Your task to perform on an android device: turn off location history Image 0: 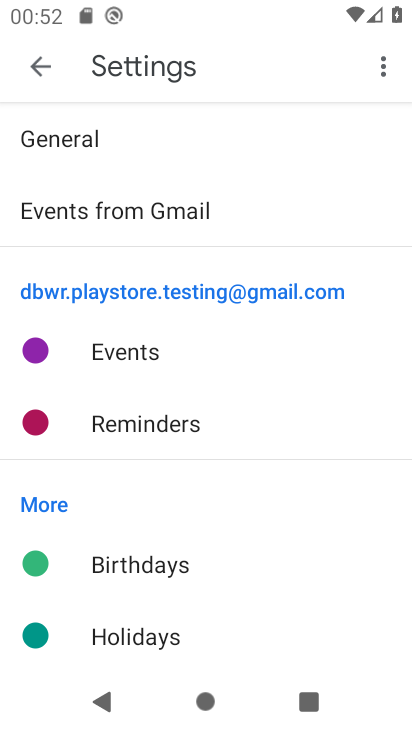
Step 0: press home button
Your task to perform on an android device: turn off location history Image 1: 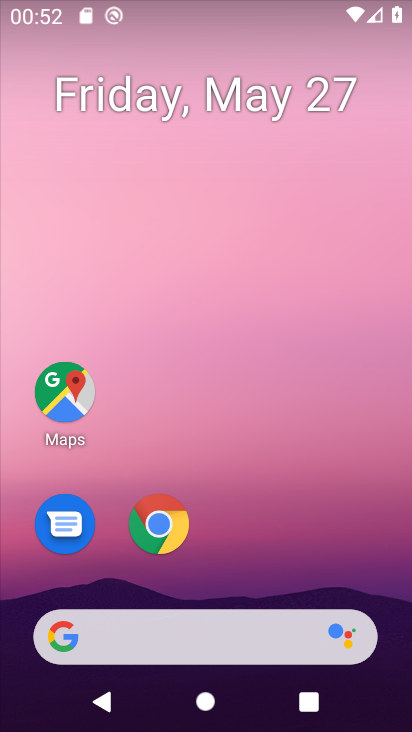
Step 1: drag from (249, 553) to (261, 35)
Your task to perform on an android device: turn off location history Image 2: 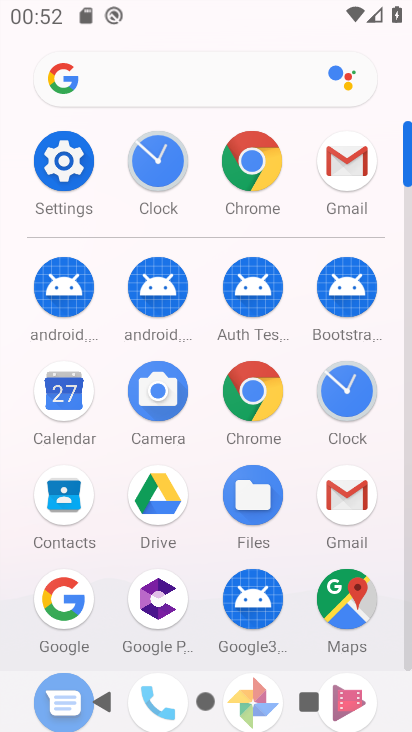
Step 2: click (68, 164)
Your task to perform on an android device: turn off location history Image 3: 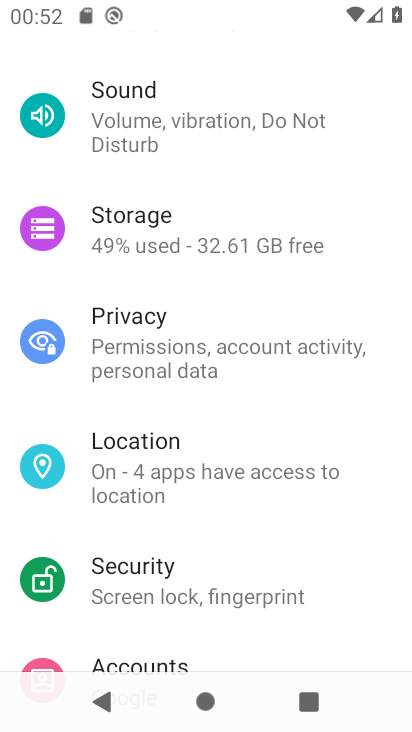
Step 3: click (219, 461)
Your task to perform on an android device: turn off location history Image 4: 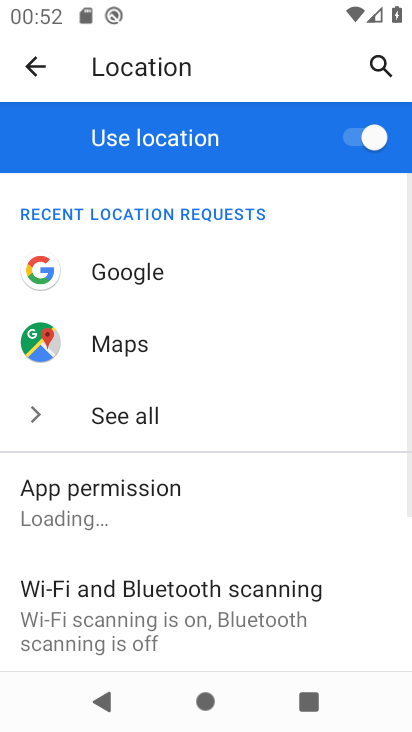
Step 4: drag from (245, 560) to (237, 151)
Your task to perform on an android device: turn off location history Image 5: 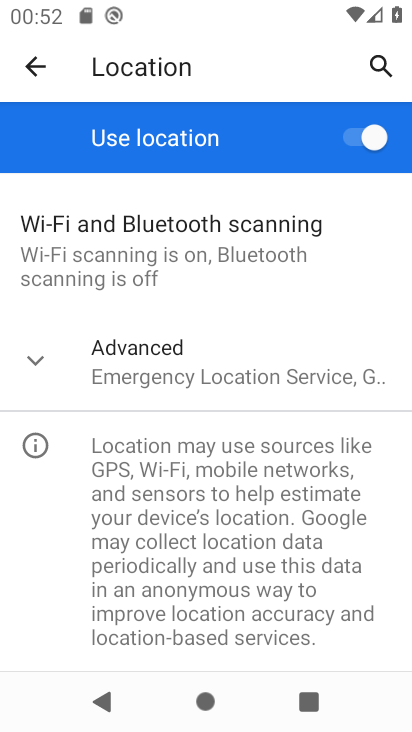
Step 5: click (39, 358)
Your task to perform on an android device: turn off location history Image 6: 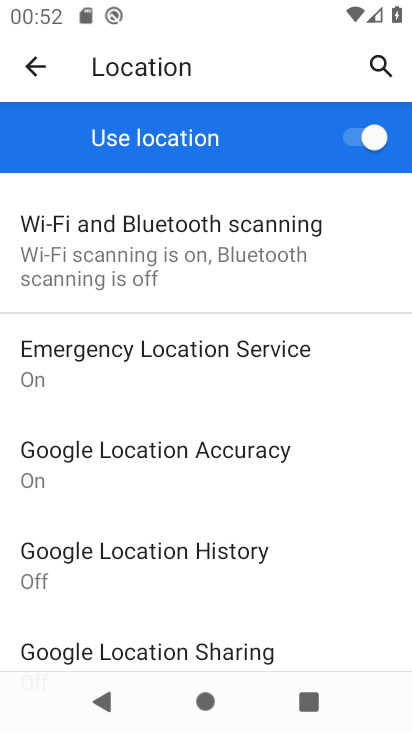
Step 6: click (212, 553)
Your task to perform on an android device: turn off location history Image 7: 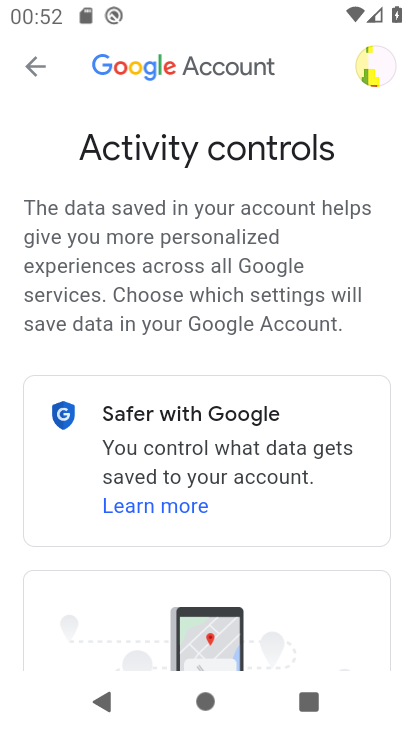
Step 7: drag from (292, 623) to (327, 86)
Your task to perform on an android device: turn off location history Image 8: 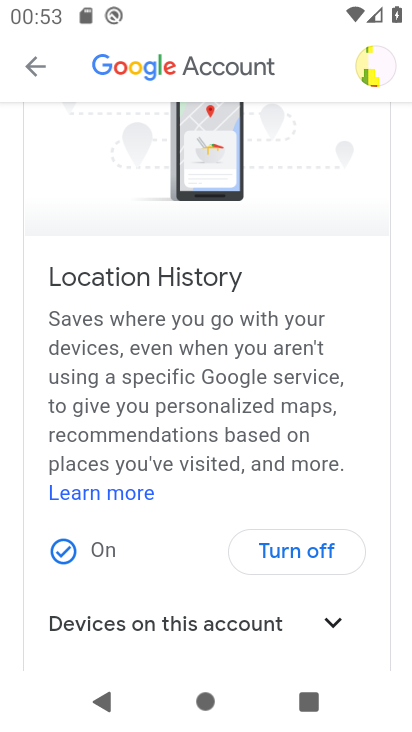
Step 8: click (314, 552)
Your task to perform on an android device: turn off location history Image 9: 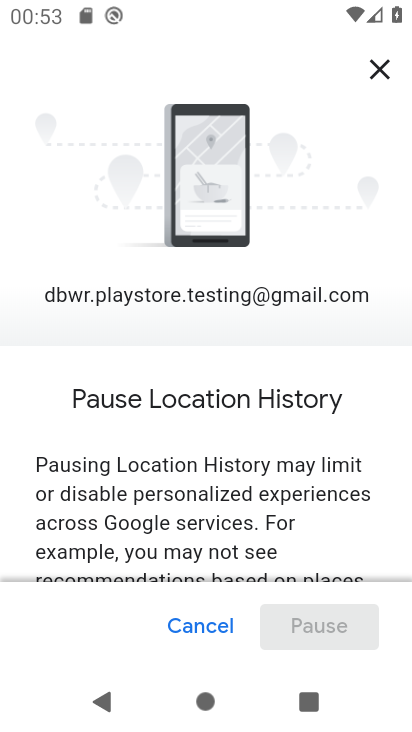
Step 9: drag from (276, 532) to (317, 1)
Your task to perform on an android device: turn off location history Image 10: 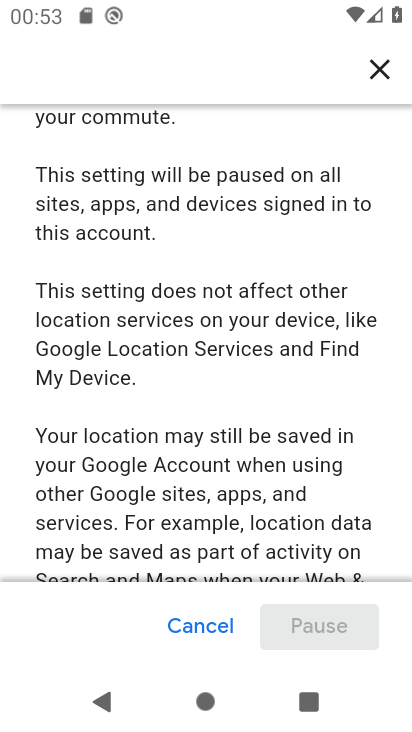
Step 10: drag from (281, 485) to (303, 100)
Your task to perform on an android device: turn off location history Image 11: 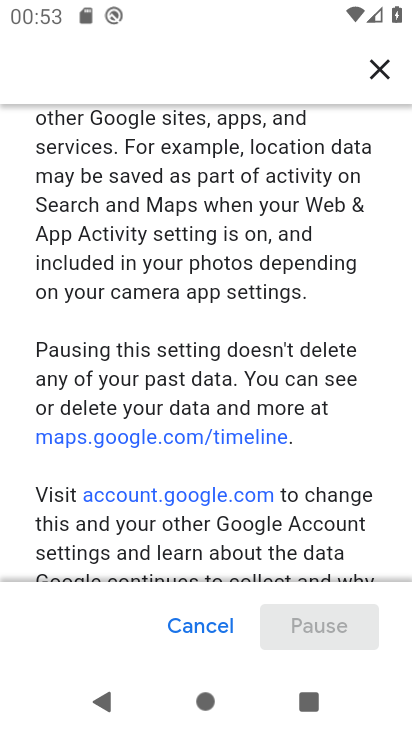
Step 11: drag from (300, 471) to (322, 209)
Your task to perform on an android device: turn off location history Image 12: 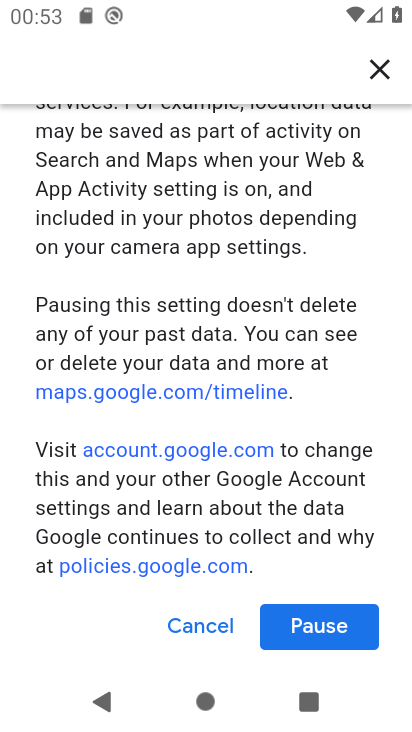
Step 12: click (346, 623)
Your task to perform on an android device: turn off location history Image 13: 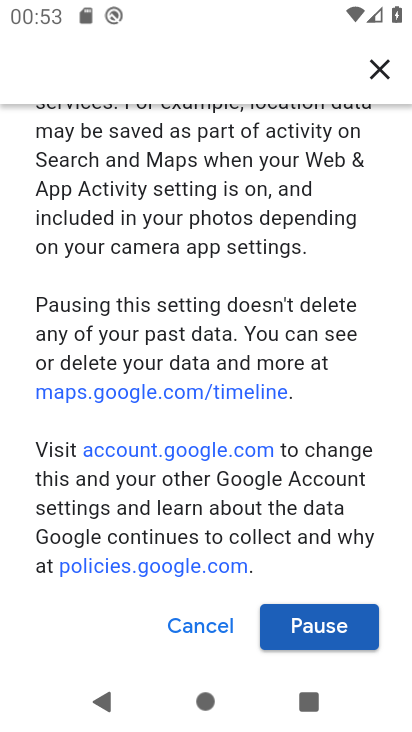
Step 13: click (346, 620)
Your task to perform on an android device: turn off location history Image 14: 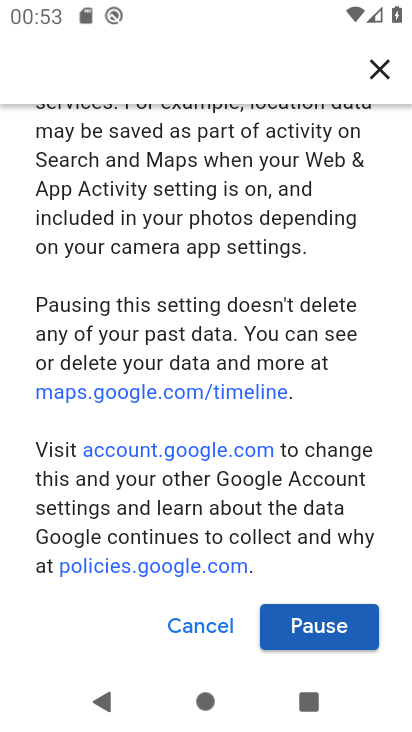
Step 14: click (333, 633)
Your task to perform on an android device: turn off location history Image 15: 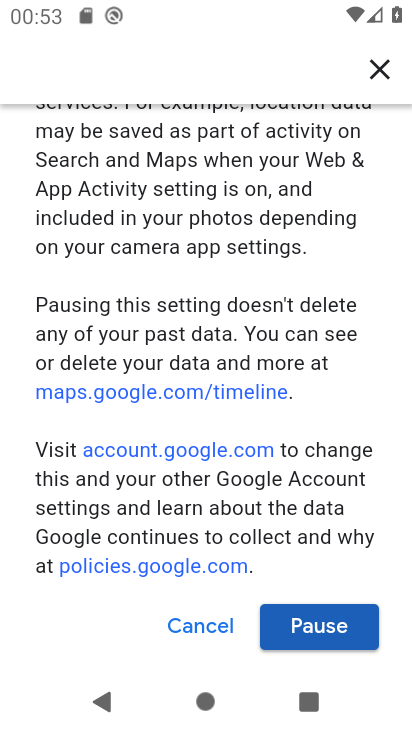
Step 15: click (340, 623)
Your task to perform on an android device: turn off location history Image 16: 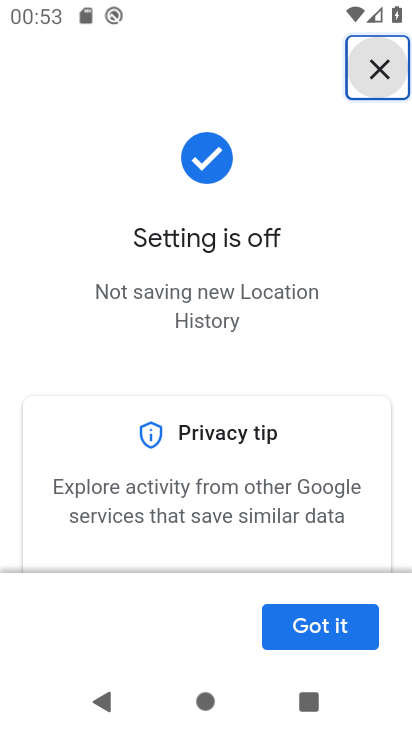
Step 16: click (340, 623)
Your task to perform on an android device: turn off location history Image 17: 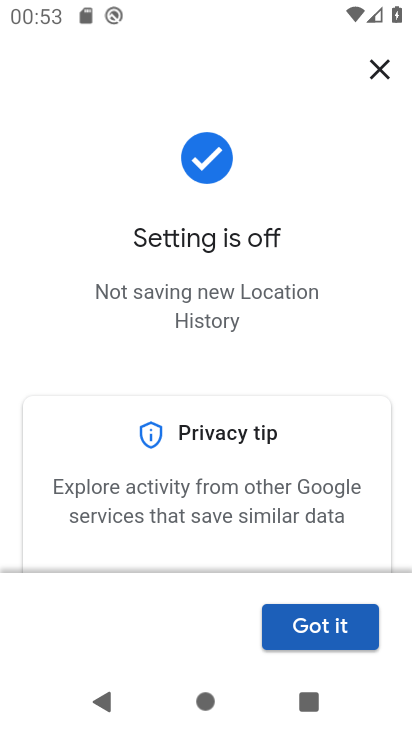
Step 17: click (340, 623)
Your task to perform on an android device: turn off location history Image 18: 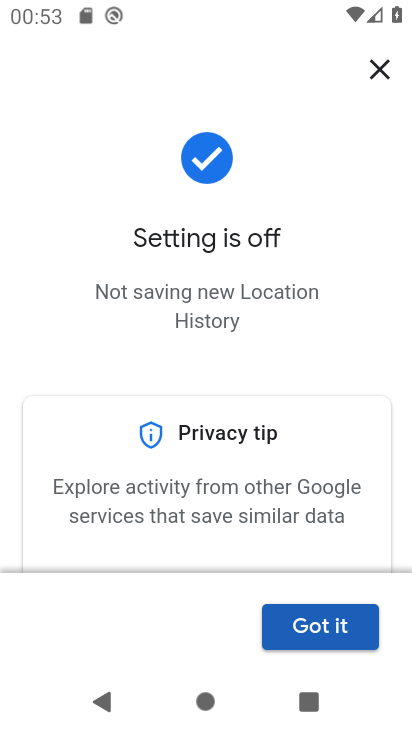
Step 18: click (322, 630)
Your task to perform on an android device: turn off location history Image 19: 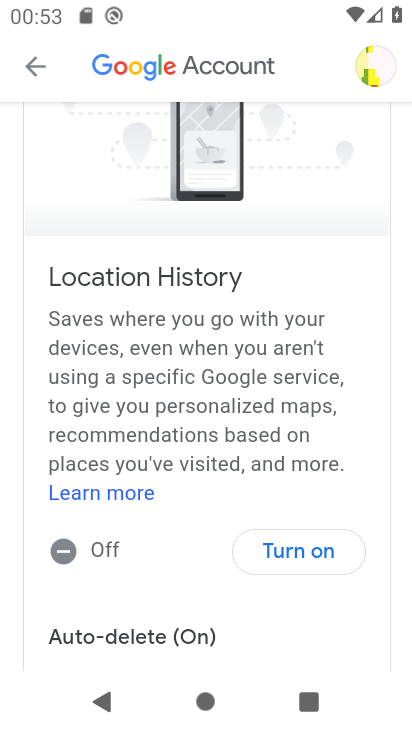
Step 19: task complete